Your task to perform on an android device: Open the stopwatch Image 0: 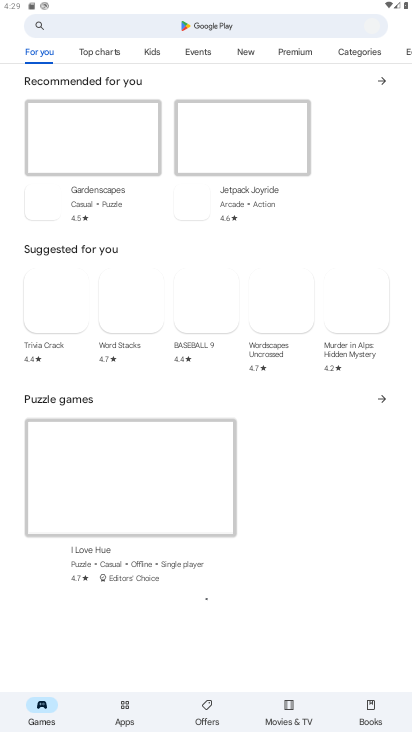
Step 0: press home button
Your task to perform on an android device: Open the stopwatch Image 1: 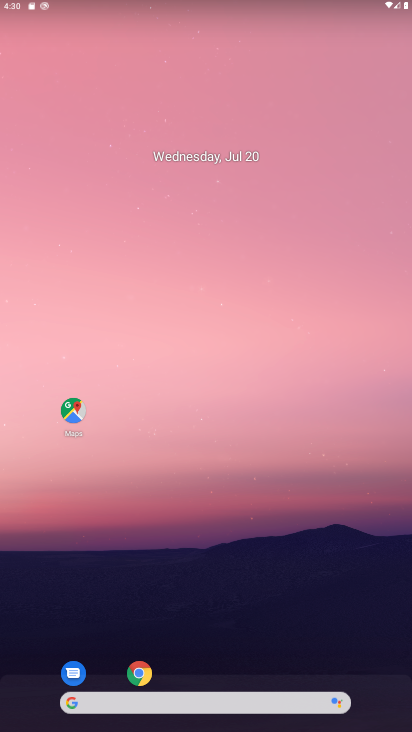
Step 1: drag from (343, 644) to (318, 10)
Your task to perform on an android device: Open the stopwatch Image 2: 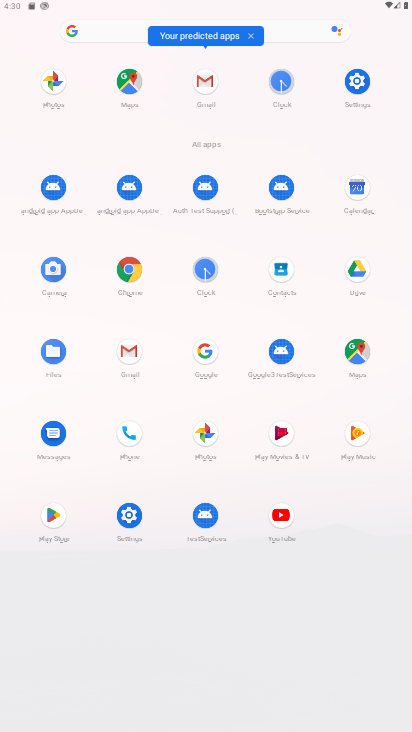
Step 2: click (207, 271)
Your task to perform on an android device: Open the stopwatch Image 3: 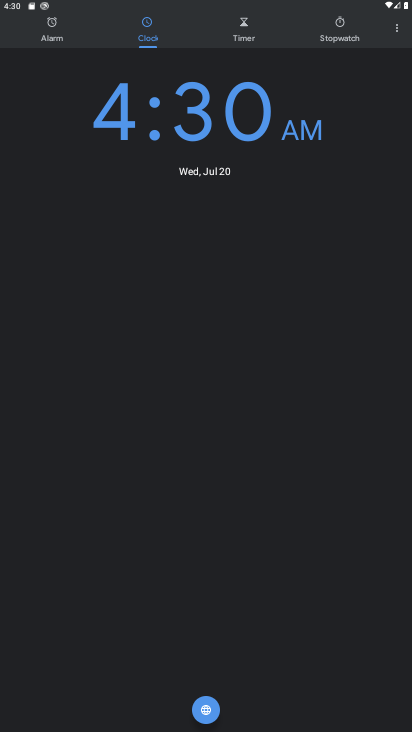
Step 3: click (322, 30)
Your task to perform on an android device: Open the stopwatch Image 4: 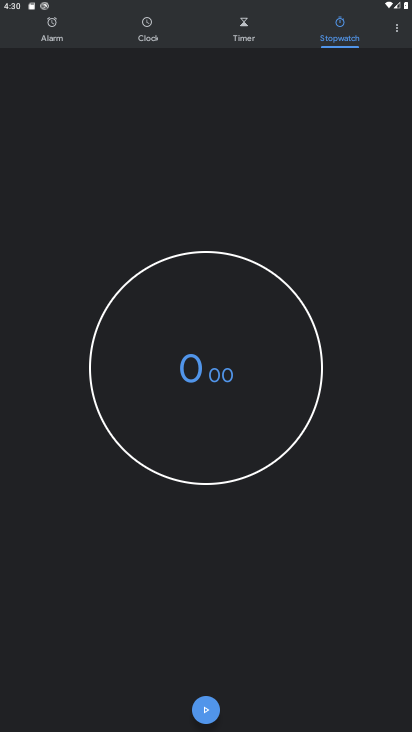
Step 4: task complete